Your task to perform on an android device: see tabs open on other devices in the chrome app Image 0: 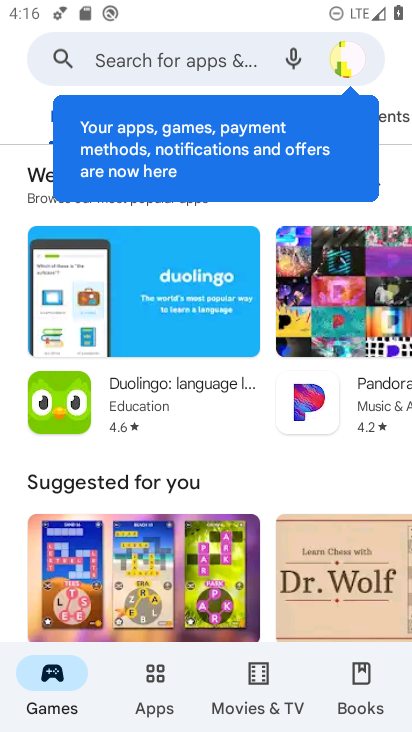
Step 0: press home button
Your task to perform on an android device: see tabs open on other devices in the chrome app Image 1: 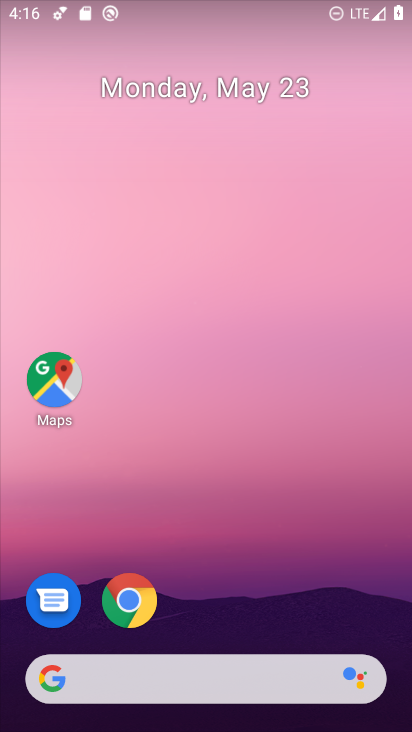
Step 1: click (142, 608)
Your task to perform on an android device: see tabs open on other devices in the chrome app Image 2: 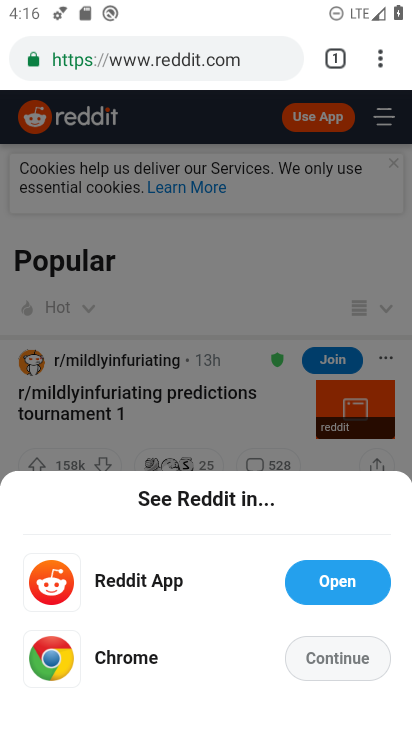
Step 2: click (381, 59)
Your task to perform on an android device: see tabs open on other devices in the chrome app Image 3: 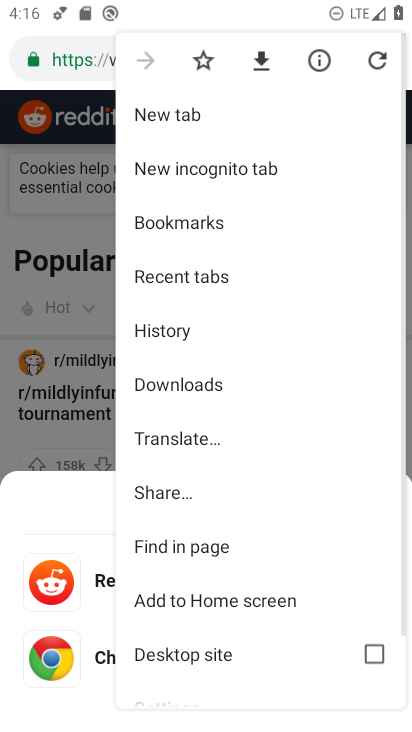
Step 3: click (187, 282)
Your task to perform on an android device: see tabs open on other devices in the chrome app Image 4: 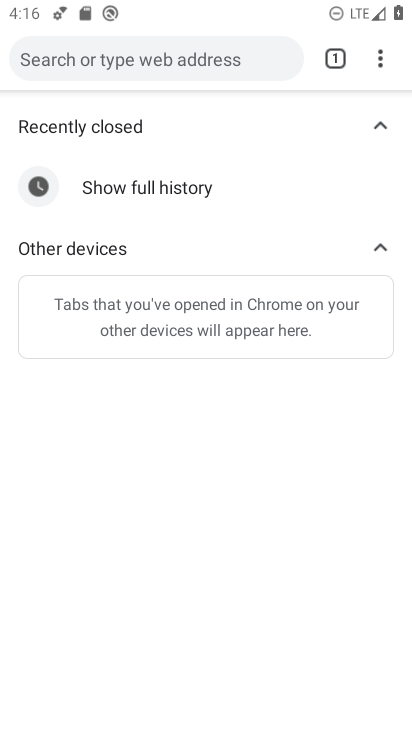
Step 4: task complete